Your task to perform on an android device: toggle airplane mode Image 0: 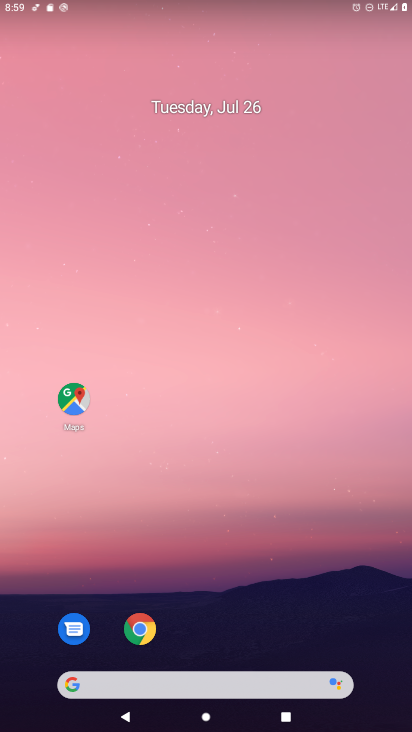
Step 0: drag from (215, 661) to (165, 53)
Your task to perform on an android device: toggle airplane mode Image 1: 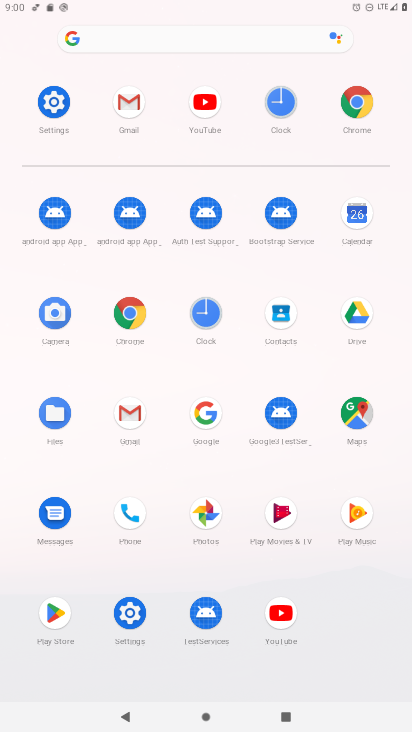
Step 1: click (151, 615)
Your task to perform on an android device: toggle airplane mode Image 2: 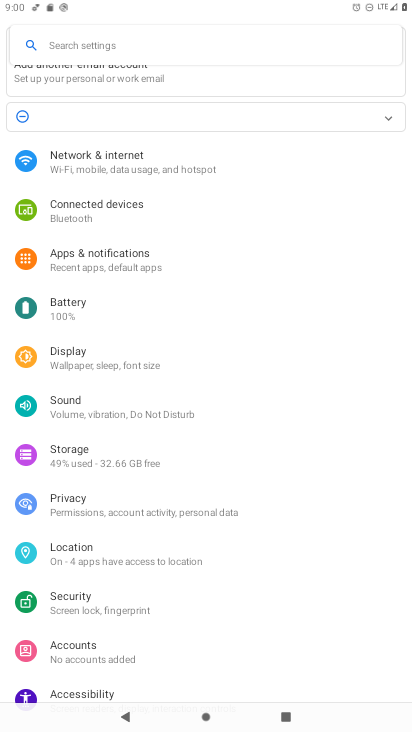
Step 2: click (98, 174)
Your task to perform on an android device: toggle airplane mode Image 3: 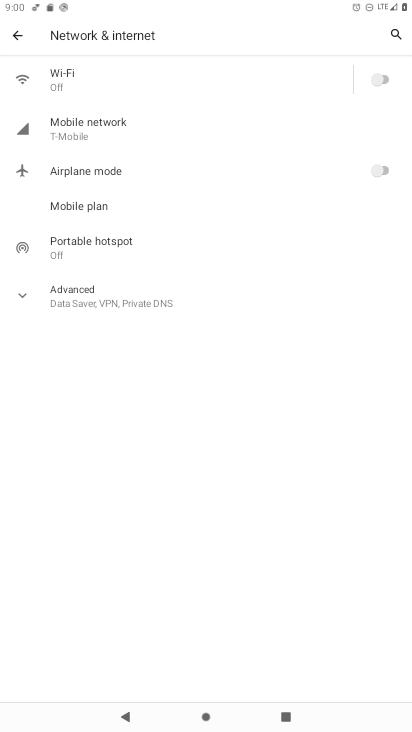
Step 3: click (372, 169)
Your task to perform on an android device: toggle airplane mode Image 4: 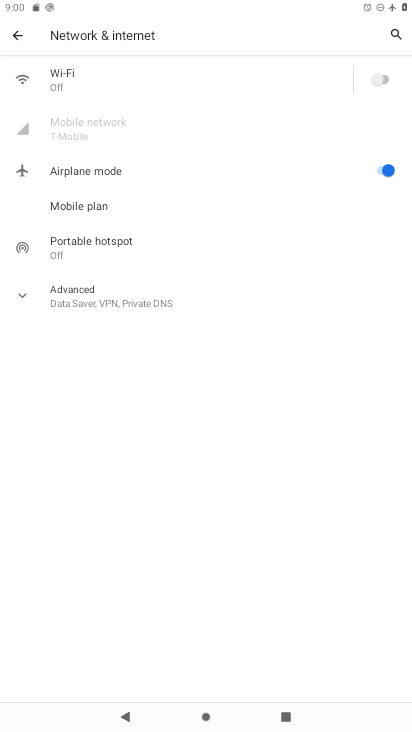
Step 4: task complete